Your task to perform on an android device: create a new album in the google photos Image 0: 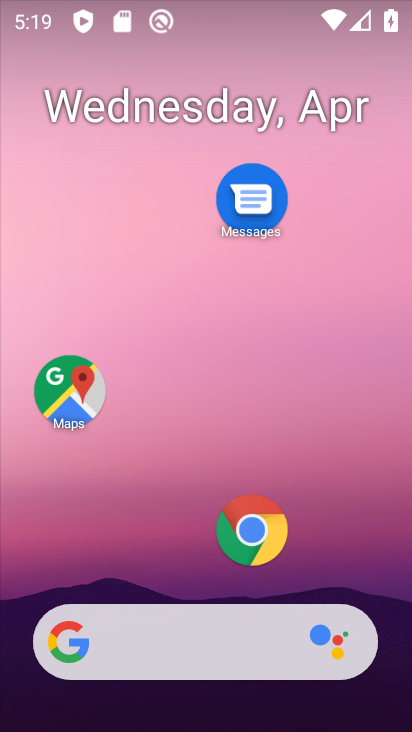
Step 0: drag from (162, 565) to (234, 91)
Your task to perform on an android device: create a new album in the google photos Image 1: 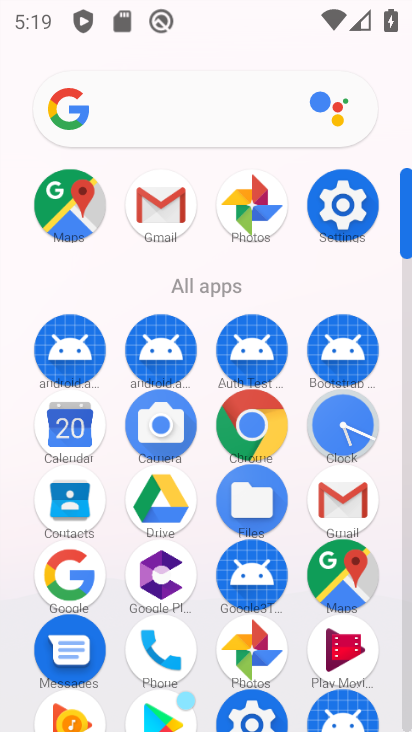
Step 1: click (254, 204)
Your task to perform on an android device: create a new album in the google photos Image 2: 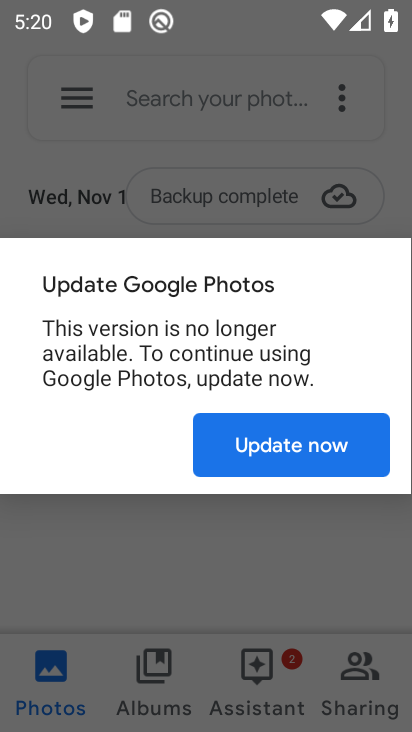
Step 2: click (313, 434)
Your task to perform on an android device: create a new album in the google photos Image 3: 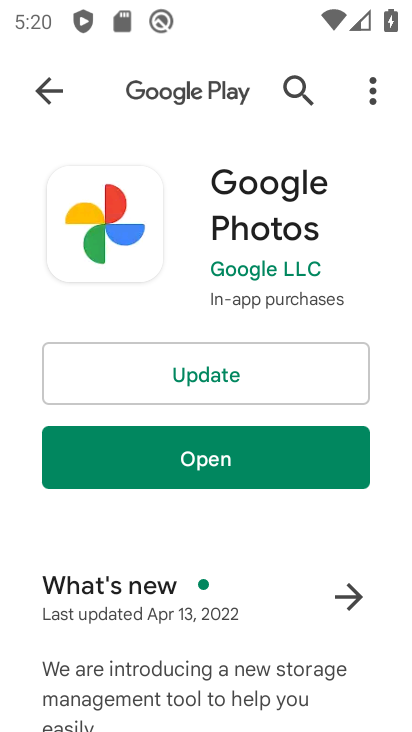
Step 3: click (211, 457)
Your task to perform on an android device: create a new album in the google photos Image 4: 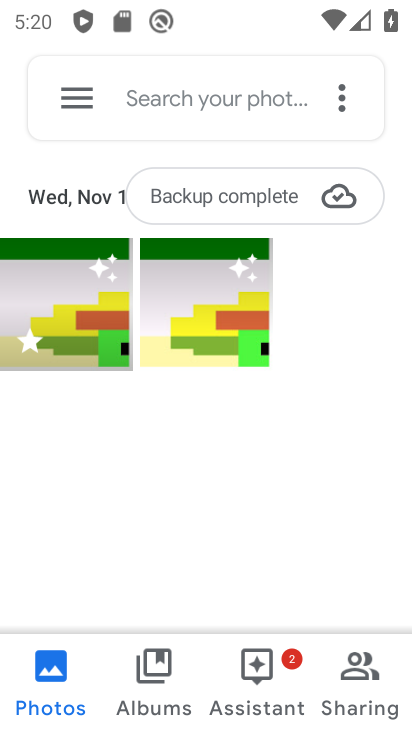
Step 4: click (342, 92)
Your task to perform on an android device: create a new album in the google photos Image 5: 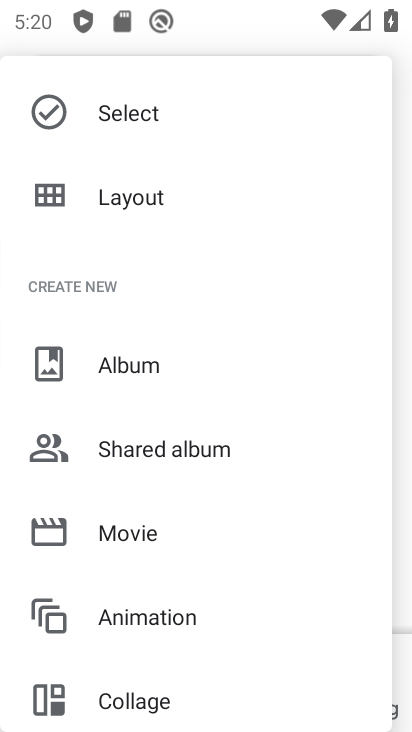
Step 5: click (143, 366)
Your task to perform on an android device: create a new album in the google photos Image 6: 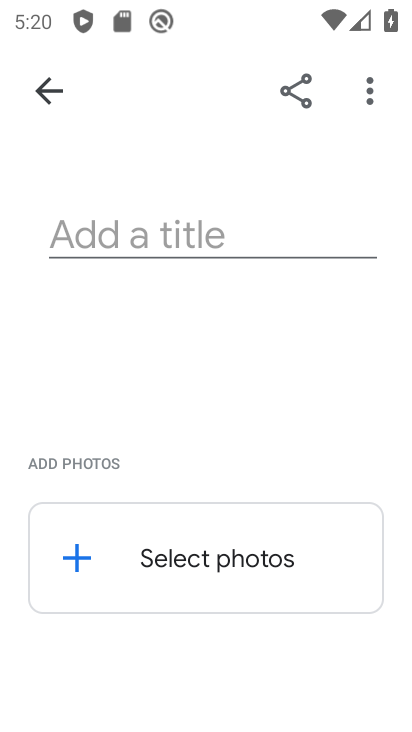
Step 6: click (194, 225)
Your task to perform on an android device: create a new album in the google photos Image 7: 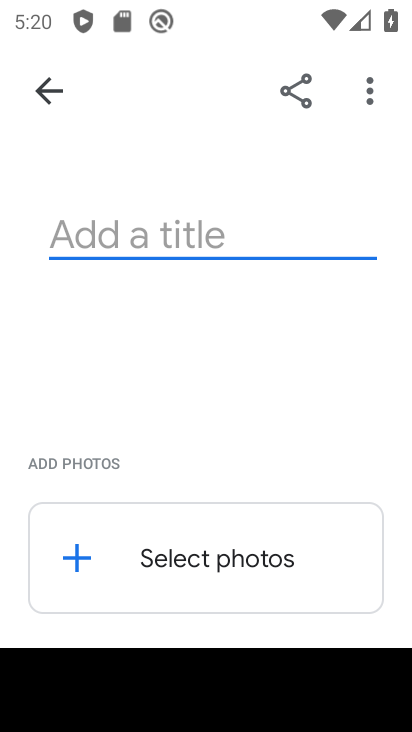
Step 7: type "Jackson"
Your task to perform on an android device: create a new album in the google photos Image 8: 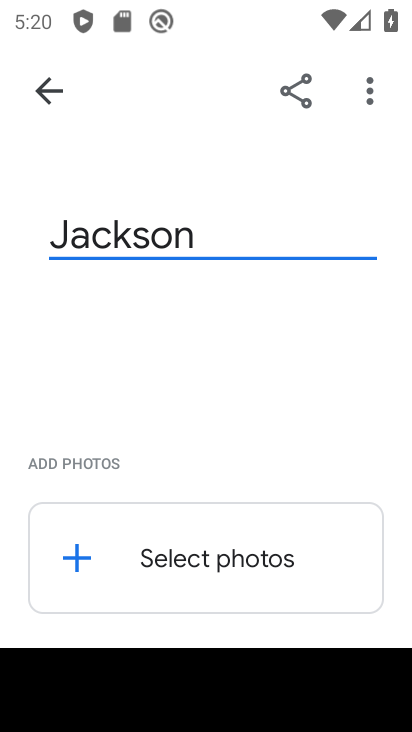
Step 8: click (197, 558)
Your task to perform on an android device: create a new album in the google photos Image 9: 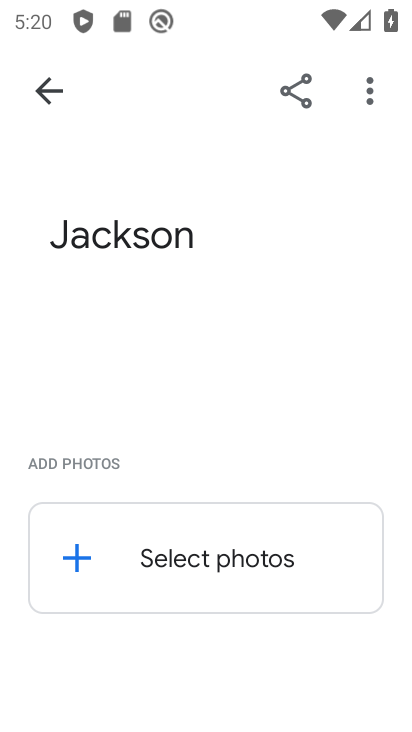
Step 9: click (160, 557)
Your task to perform on an android device: create a new album in the google photos Image 10: 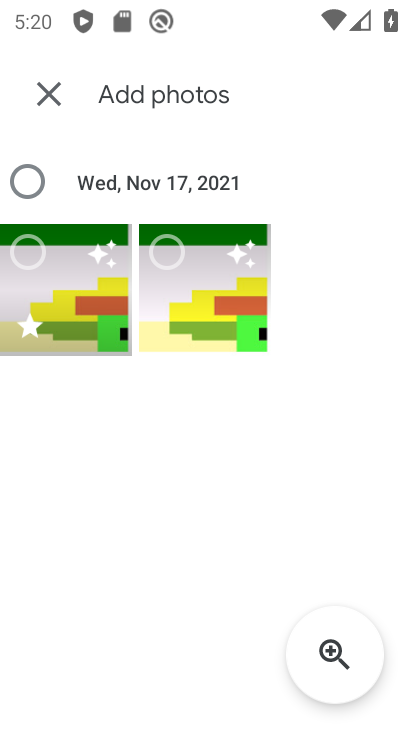
Step 10: click (25, 188)
Your task to perform on an android device: create a new album in the google photos Image 11: 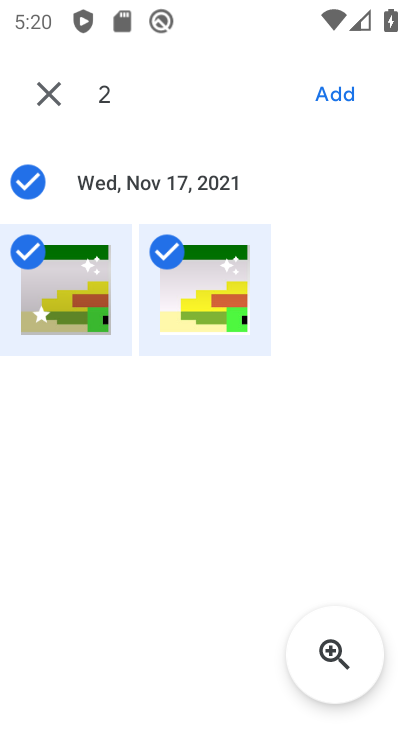
Step 11: click (340, 93)
Your task to perform on an android device: create a new album in the google photos Image 12: 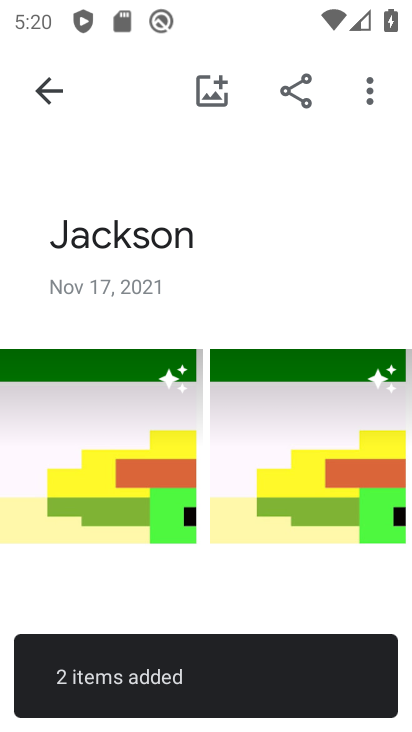
Step 12: task complete